Your task to perform on an android device: Open internet settings Image 0: 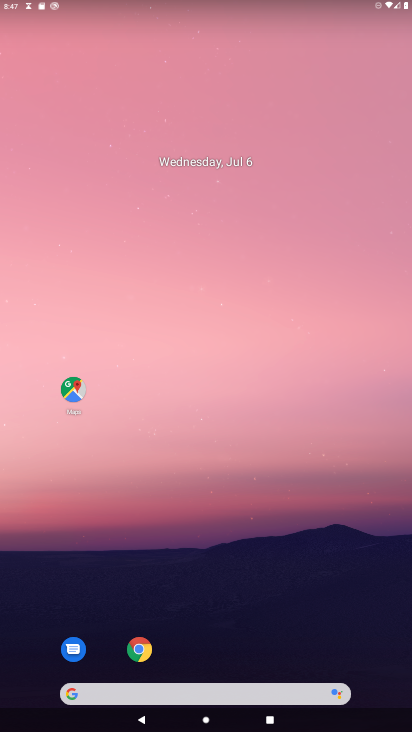
Step 0: drag from (352, 710) to (271, 289)
Your task to perform on an android device: Open internet settings Image 1: 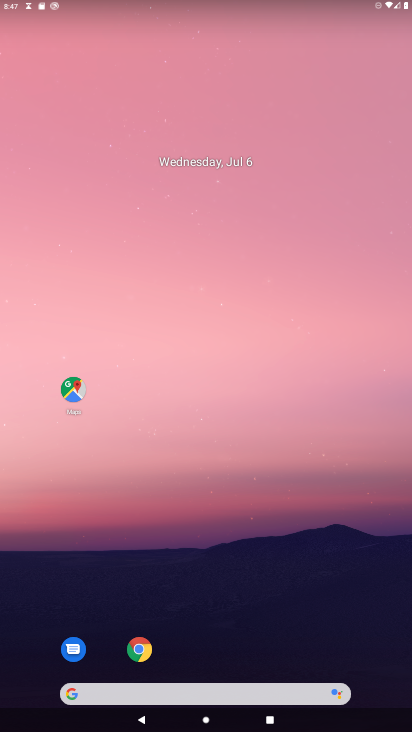
Step 1: drag from (229, 607) to (165, 264)
Your task to perform on an android device: Open internet settings Image 2: 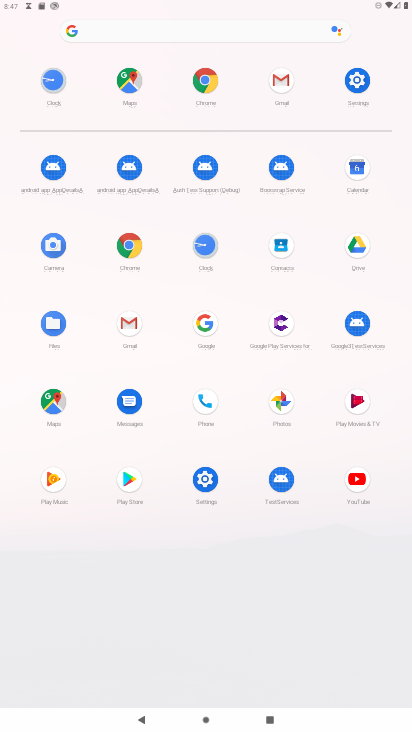
Step 2: click (198, 472)
Your task to perform on an android device: Open internet settings Image 3: 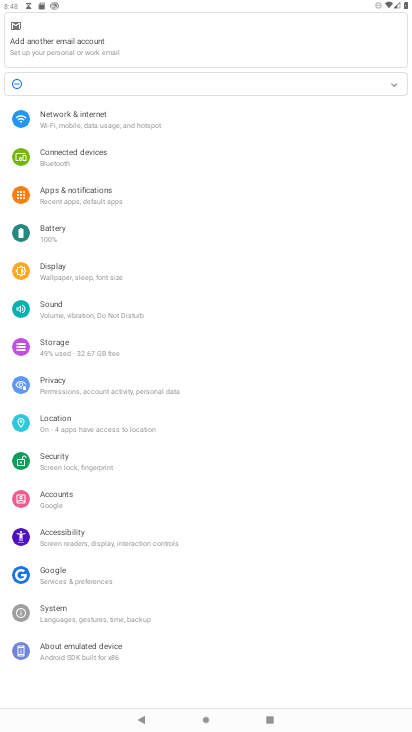
Step 3: click (72, 128)
Your task to perform on an android device: Open internet settings Image 4: 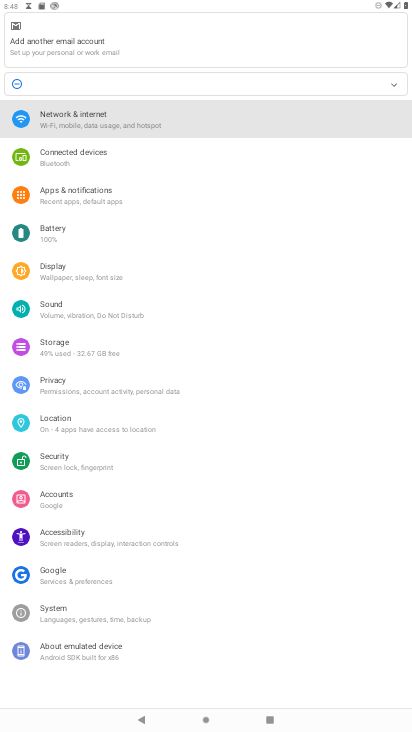
Step 4: click (73, 127)
Your task to perform on an android device: Open internet settings Image 5: 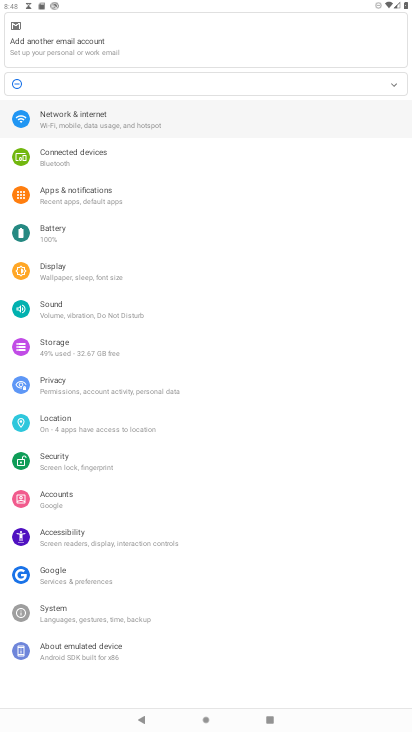
Step 5: click (74, 127)
Your task to perform on an android device: Open internet settings Image 6: 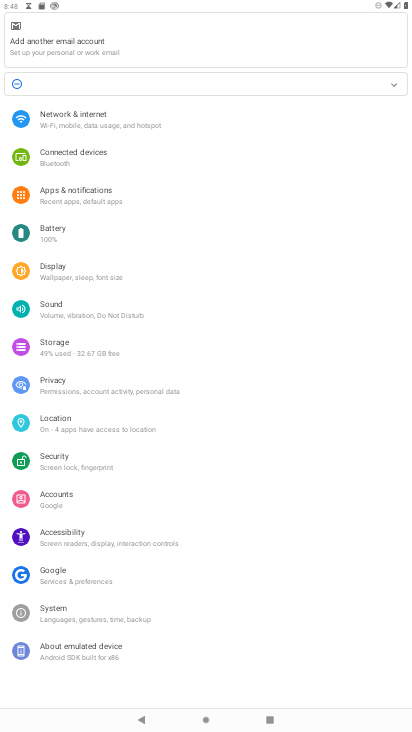
Step 6: click (74, 127)
Your task to perform on an android device: Open internet settings Image 7: 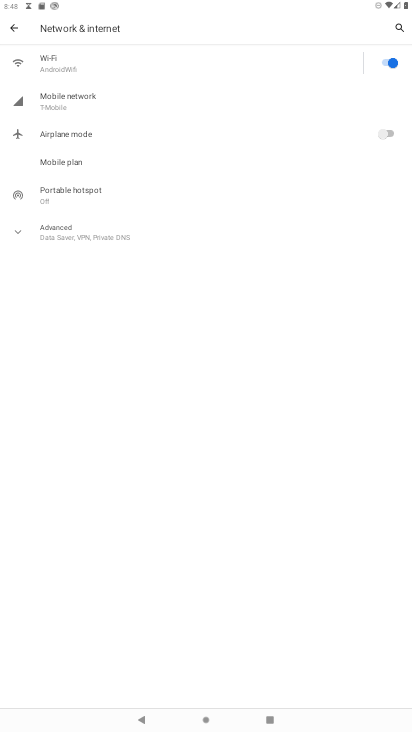
Step 7: click (55, 63)
Your task to perform on an android device: Open internet settings Image 8: 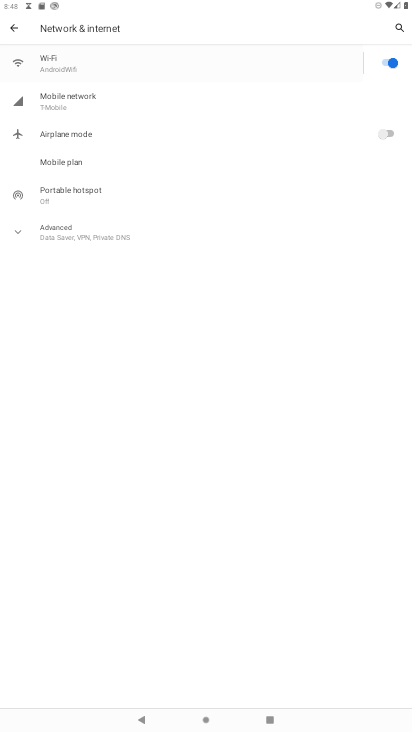
Step 8: click (49, 68)
Your task to perform on an android device: Open internet settings Image 9: 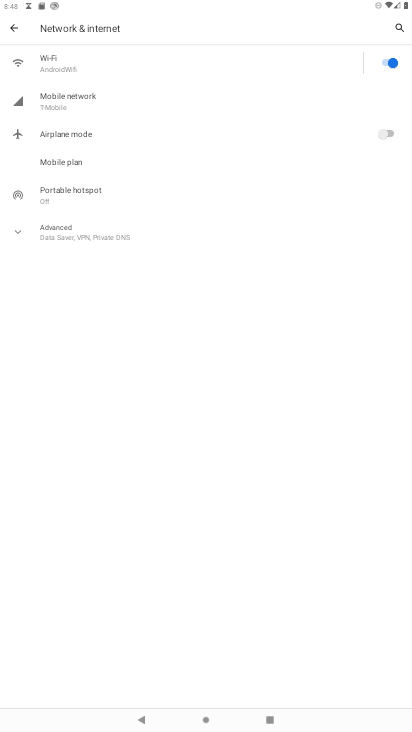
Step 9: click (49, 68)
Your task to perform on an android device: Open internet settings Image 10: 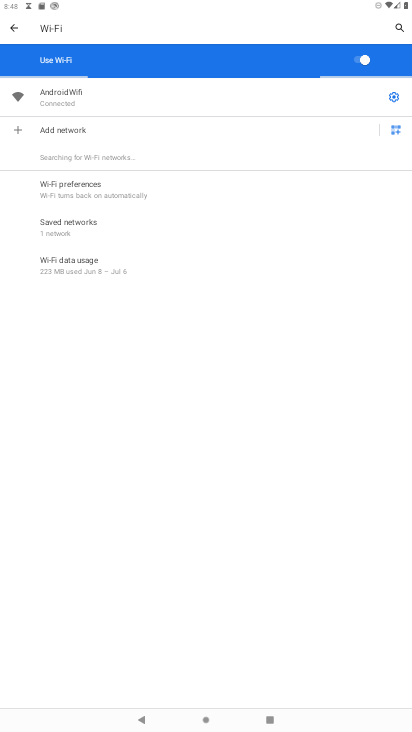
Step 10: click (11, 25)
Your task to perform on an android device: Open internet settings Image 11: 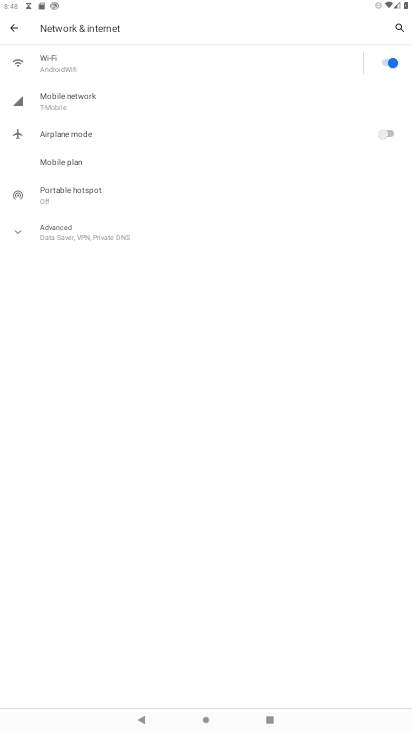
Step 11: task complete